Your task to perform on an android device: Do I have any events today? Image 0: 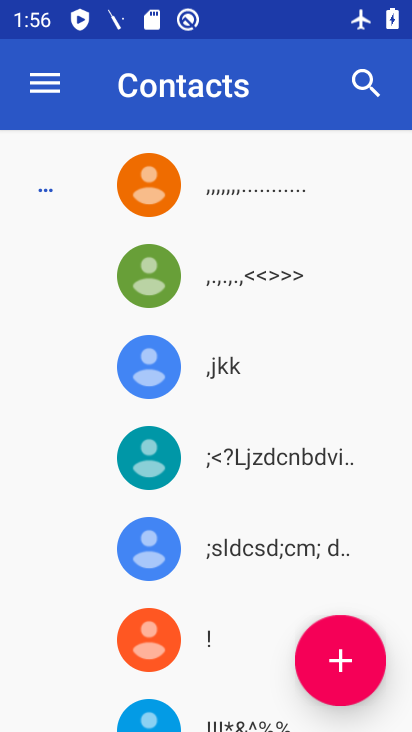
Step 0: press home button
Your task to perform on an android device: Do I have any events today? Image 1: 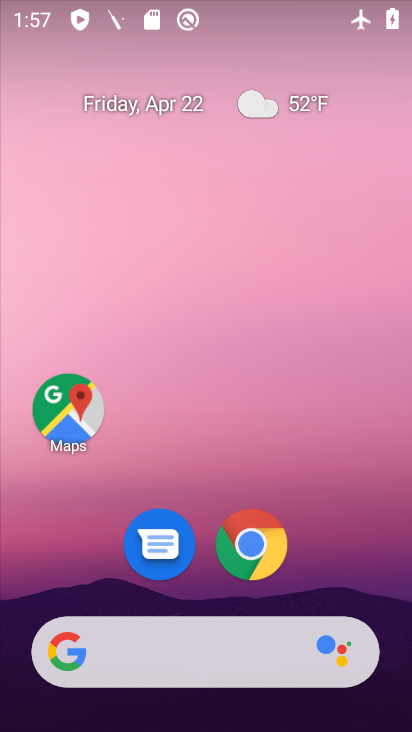
Step 1: drag from (212, 600) to (94, 11)
Your task to perform on an android device: Do I have any events today? Image 2: 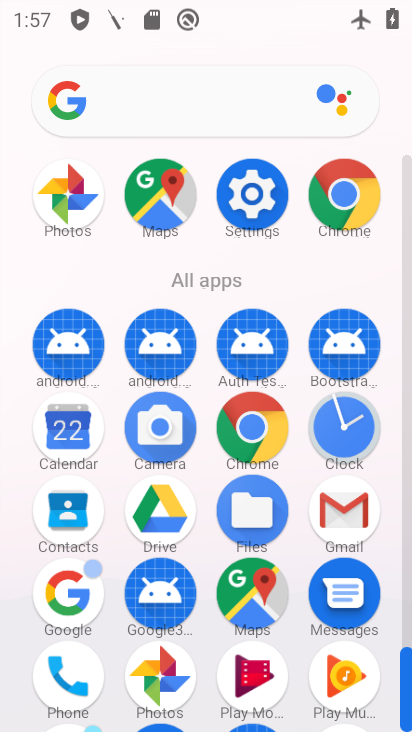
Step 2: click (81, 423)
Your task to perform on an android device: Do I have any events today? Image 3: 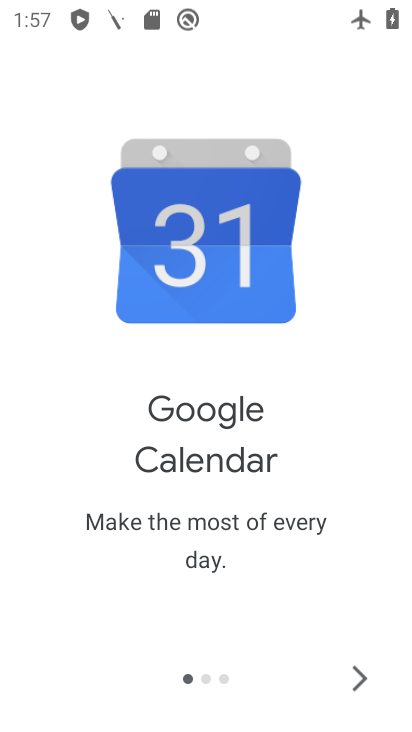
Step 3: click (369, 673)
Your task to perform on an android device: Do I have any events today? Image 4: 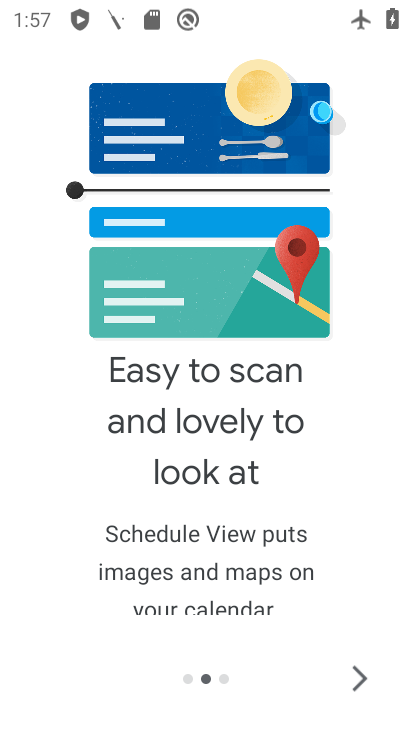
Step 4: click (369, 673)
Your task to perform on an android device: Do I have any events today? Image 5: 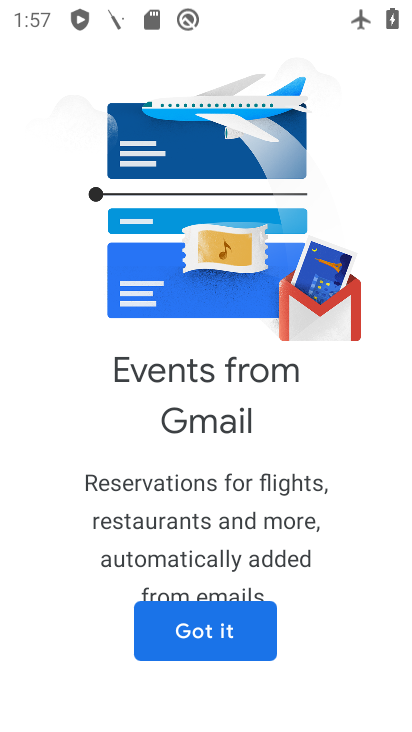
Step 5: click (237, 645)
Your task to perform on an android device: Do I have any events today? Image 6: 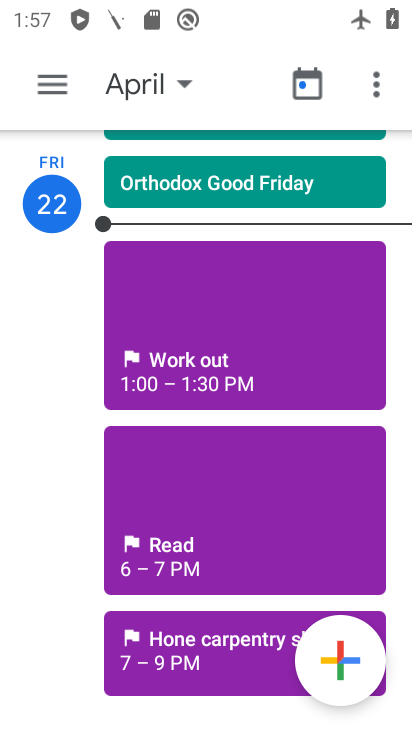
Step 6: click (252, 323)
Your task to perform on an android device: Do I have any events today? Image 7: 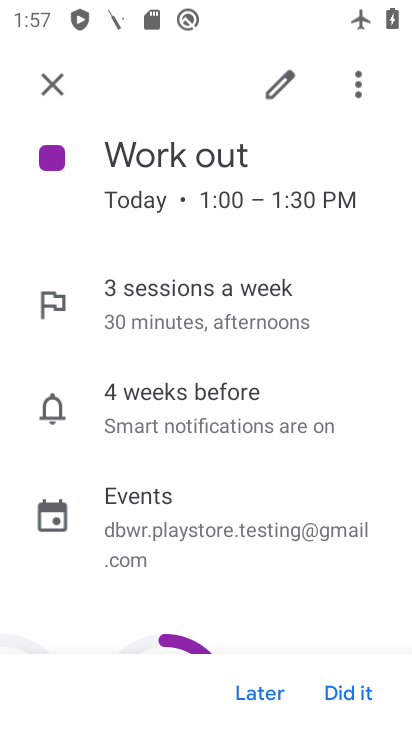
Step 7: task complete